Your task to perform on an android device: Open network settings Image 0: 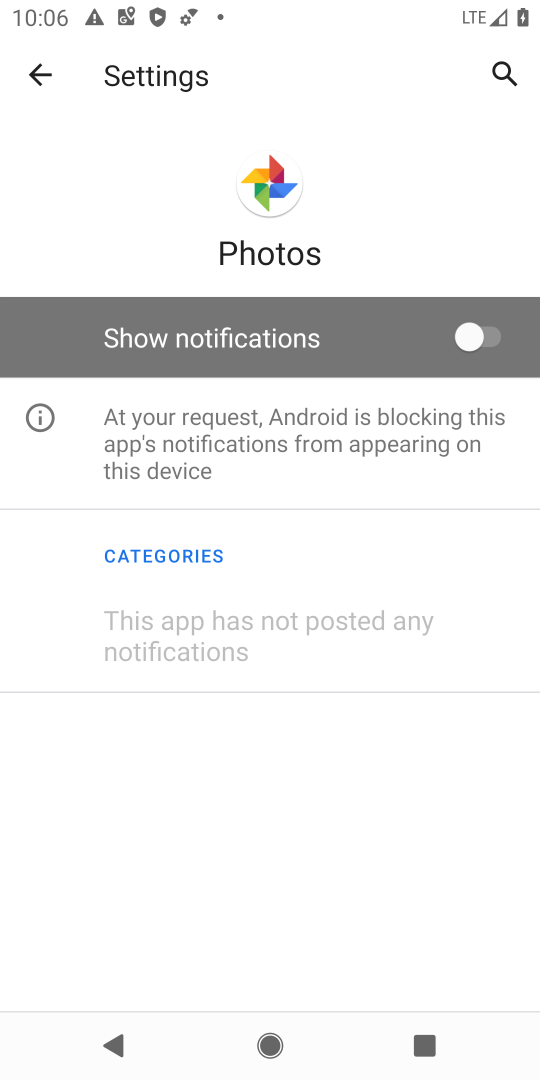
Step 0: press home button
Your task to perform on an android device: Open network settings Image 1: 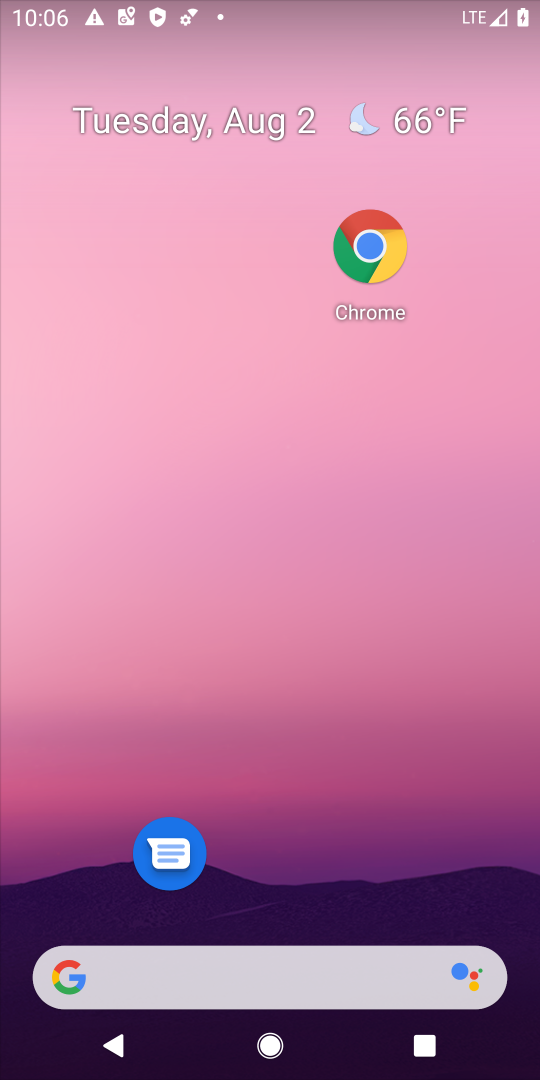
Step 1: drag from (277, 925) to (277, 95)
Your task to perform on an android device: Open network settings Image 2: 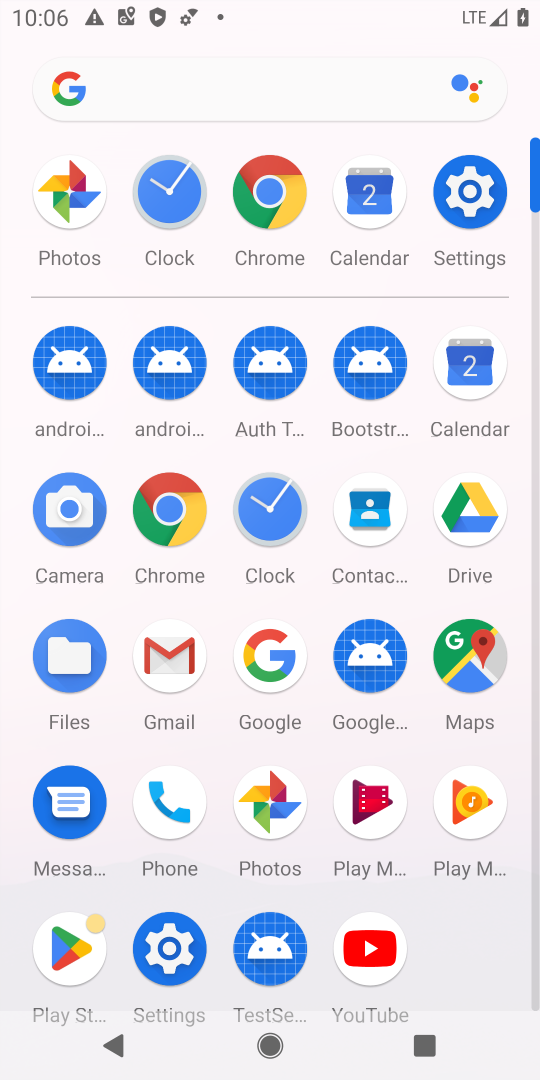
Step 2: click (170, 931)
Your task to perform on an android device: Open network settings Image 3: 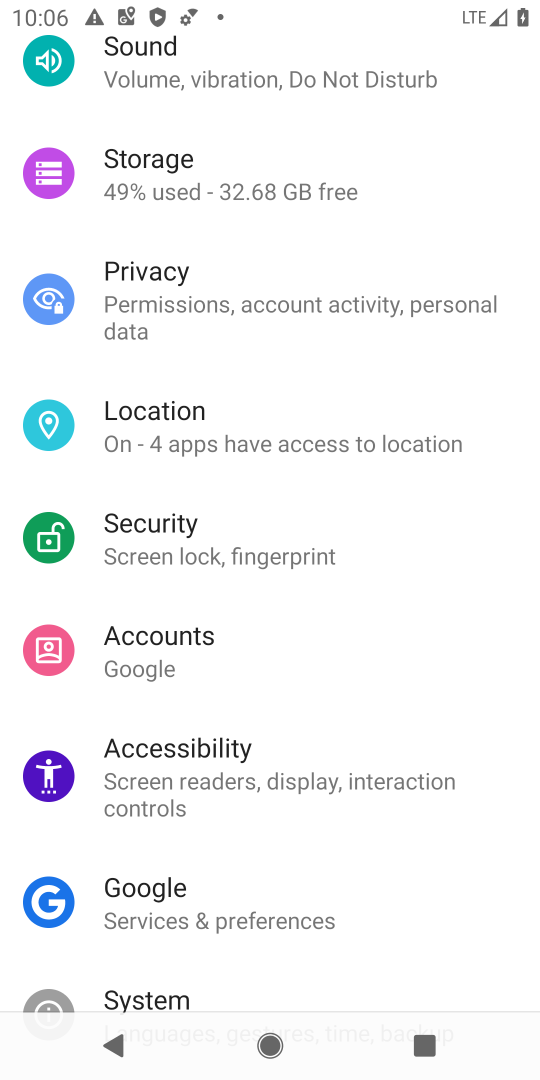
Step 3: drag from (272, 155) to (237, 812)
Your task to perform on an android device: Open network settings Image 4: 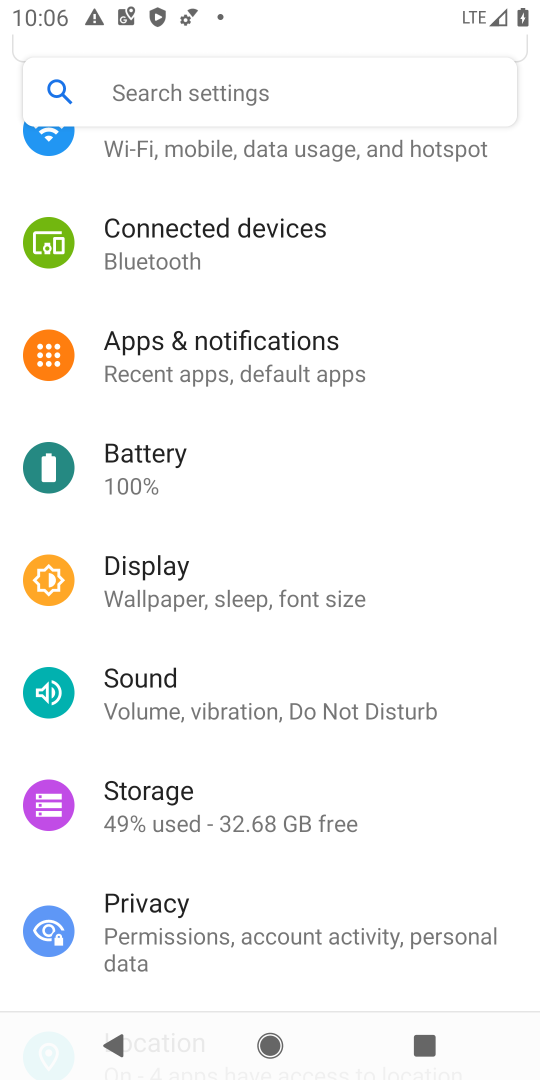
Step 4: drag from (145, 205) to (135, 723)
Your task to perform on an android device: Open network settings Image 5: 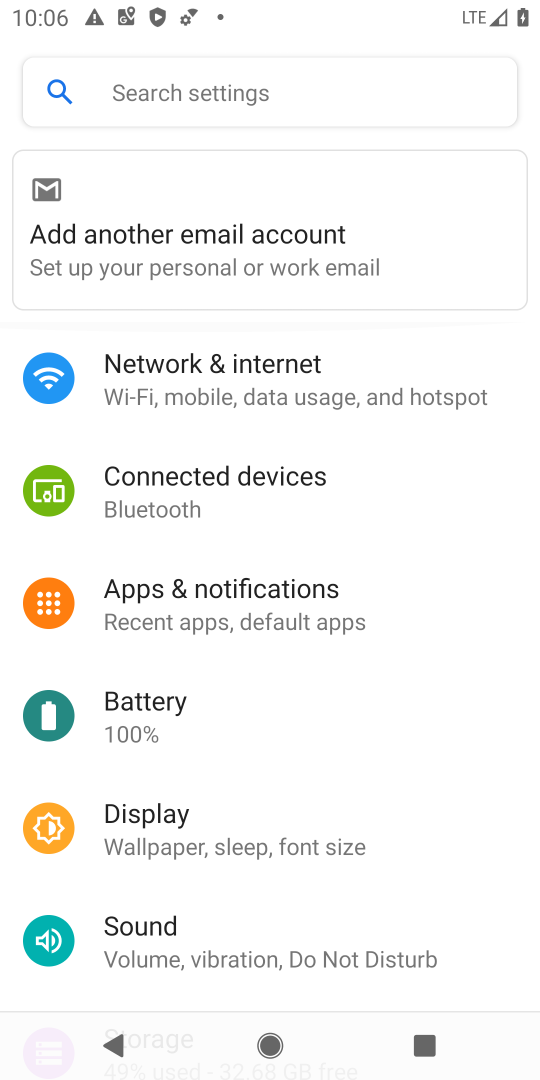
Step 5: click (152, 372)
Your task to perform on an android device: Open network settings Image 6: 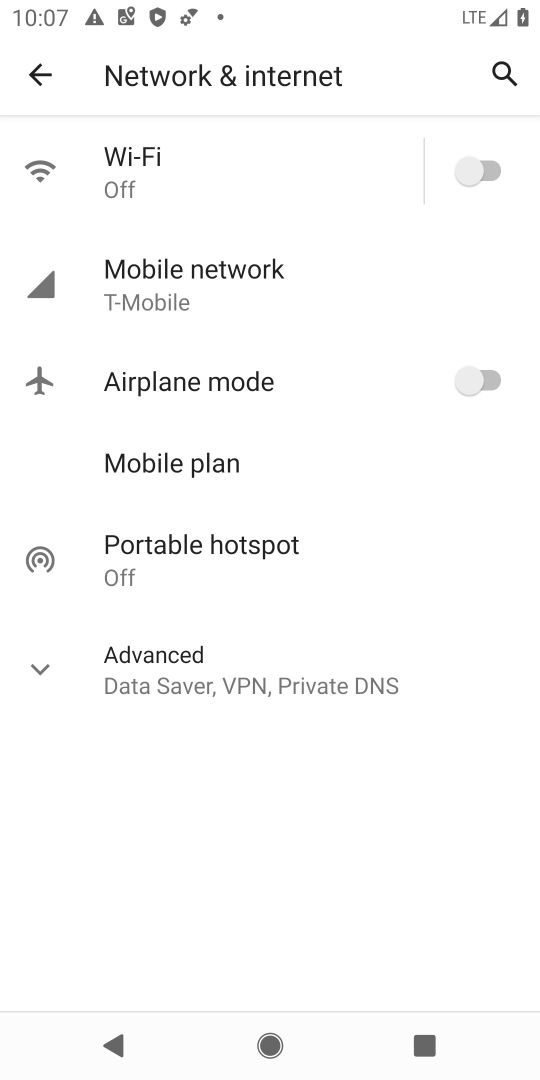
Step 6: click (156, 297)
Your task to perform on an android device: Open network settings Image 7: 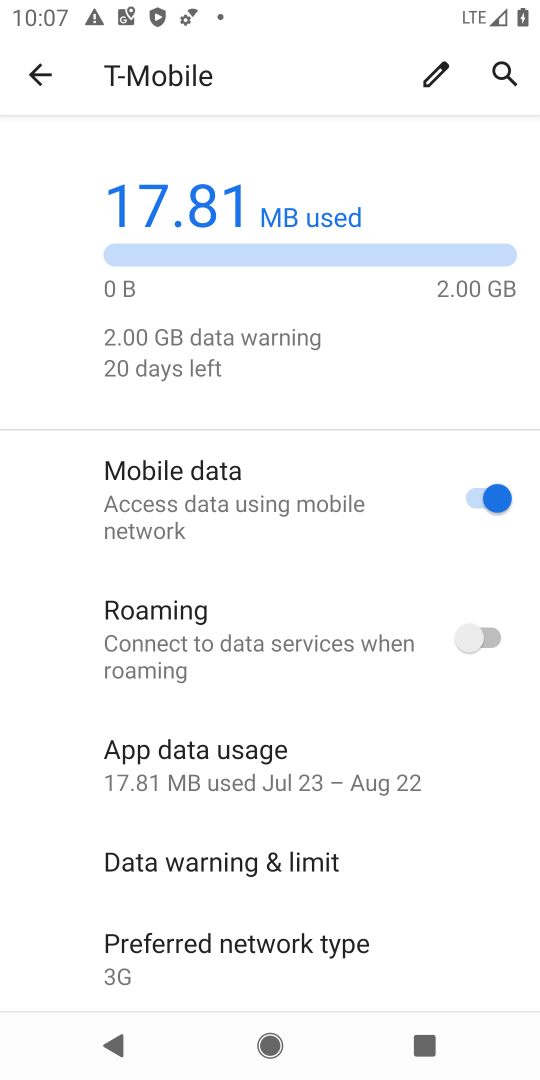
Step 7: task complete